Your task to perform on an android device: Play the last video I watched on Youtube Image 0: 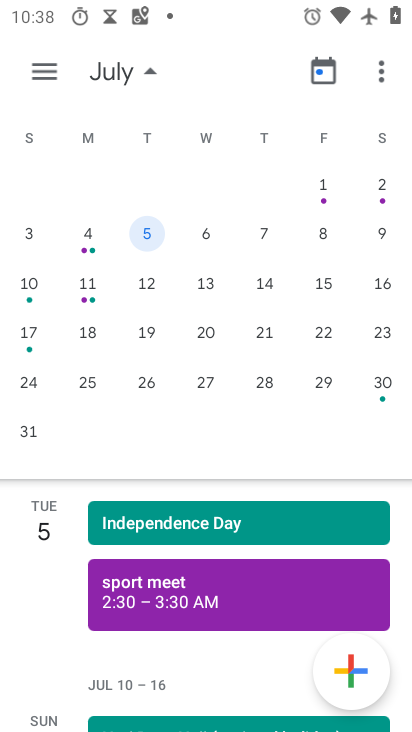
Step 0: press home button
Your task to perform on an android device: Play the last video I watched on Youtube Image 1: 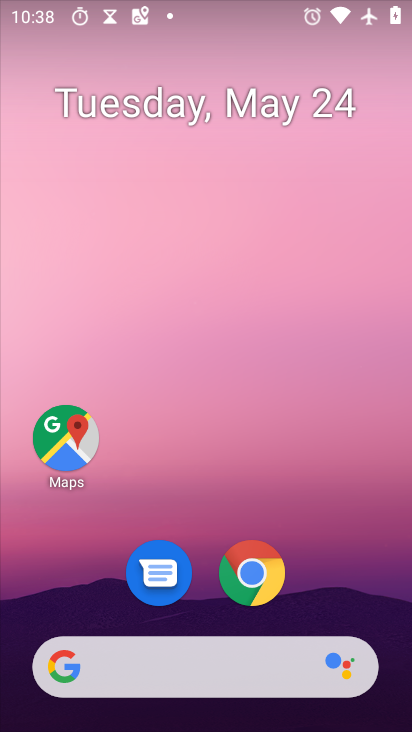
Step 1: drag from (361, 589) to (399, 31)
Your task to perform on an android device: Play the last video I watched on Youtube Image 2: 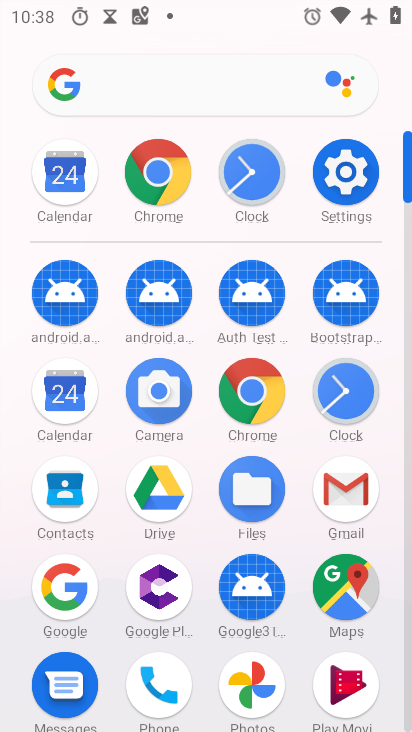
Step 2: drag from (389, 671) to (396, 214)
Your task to perform on an android device: Play the last video I watched on Youtube Image 3: 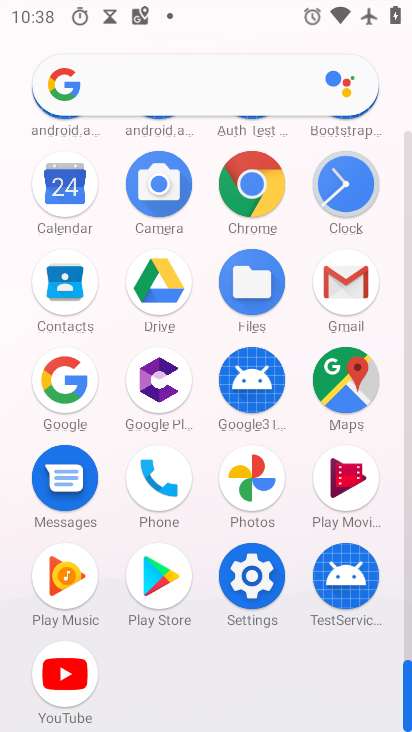
Step 3: click (69, 669)
Your task to perform on an android device: Play the last video I watched on Youtube Image 4: 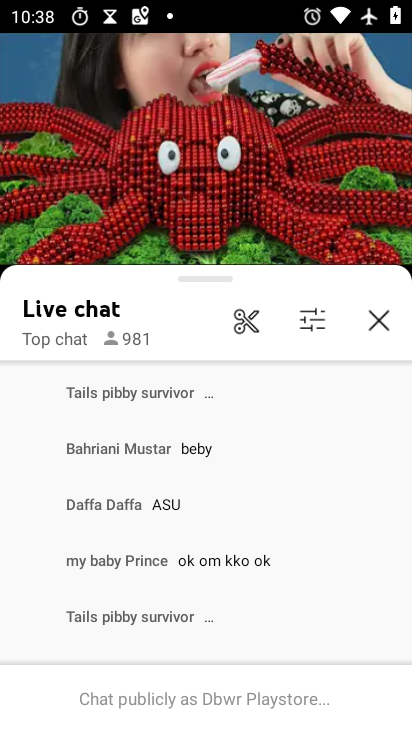
Step 4: click (208, 152)
Your task to perform on an android device: Play the last video I watched on Youtube Image 5: 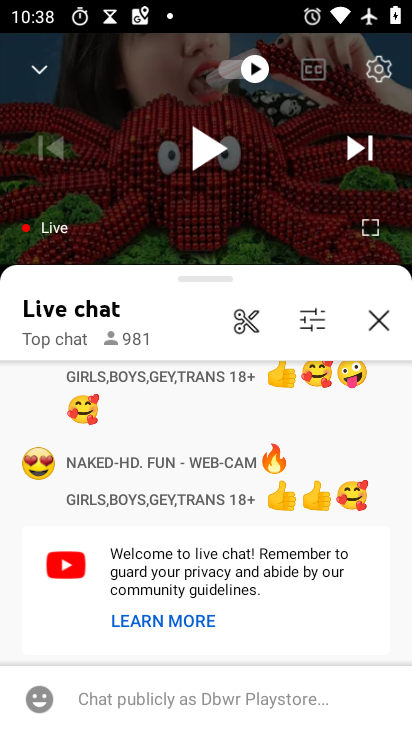
Step 5: click (205, 143)
Your task to perform on an android device: Play the last video I watched on Youtube Image 6: 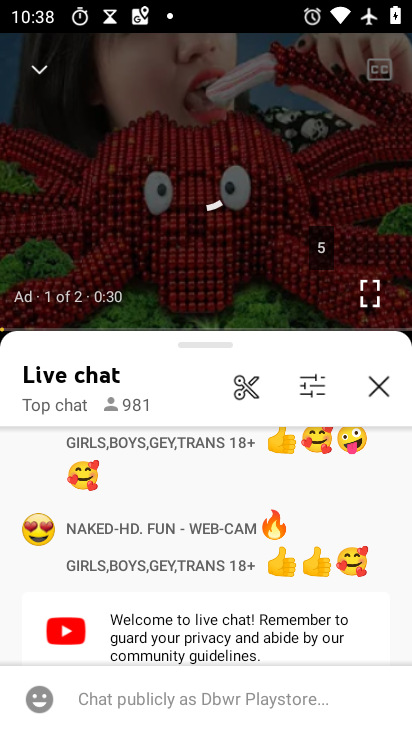
Step 6: task complete